Your task to perform on an android device: show emergency info Image 0: 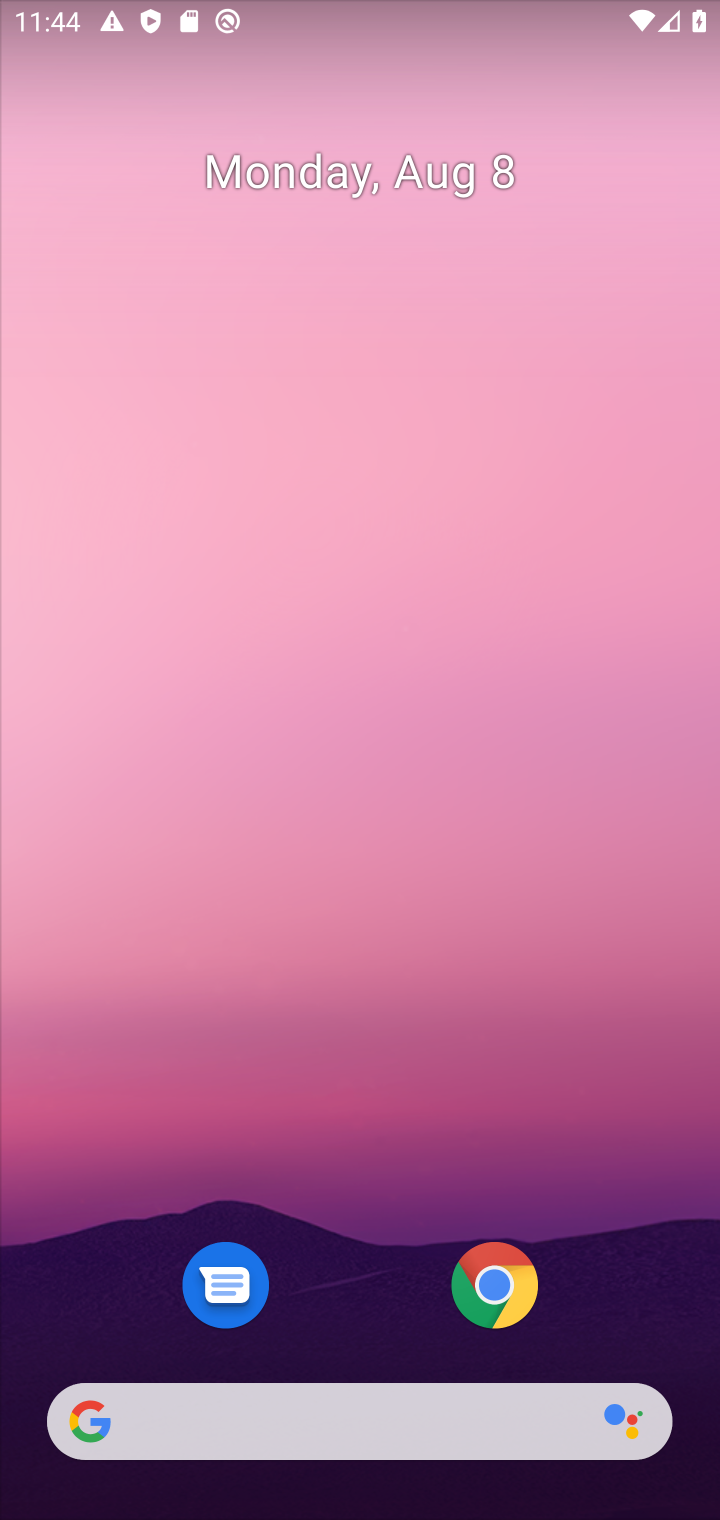
Step 0: click (391, 775)
Your task to perform on an android device: show emergency info Image 1: 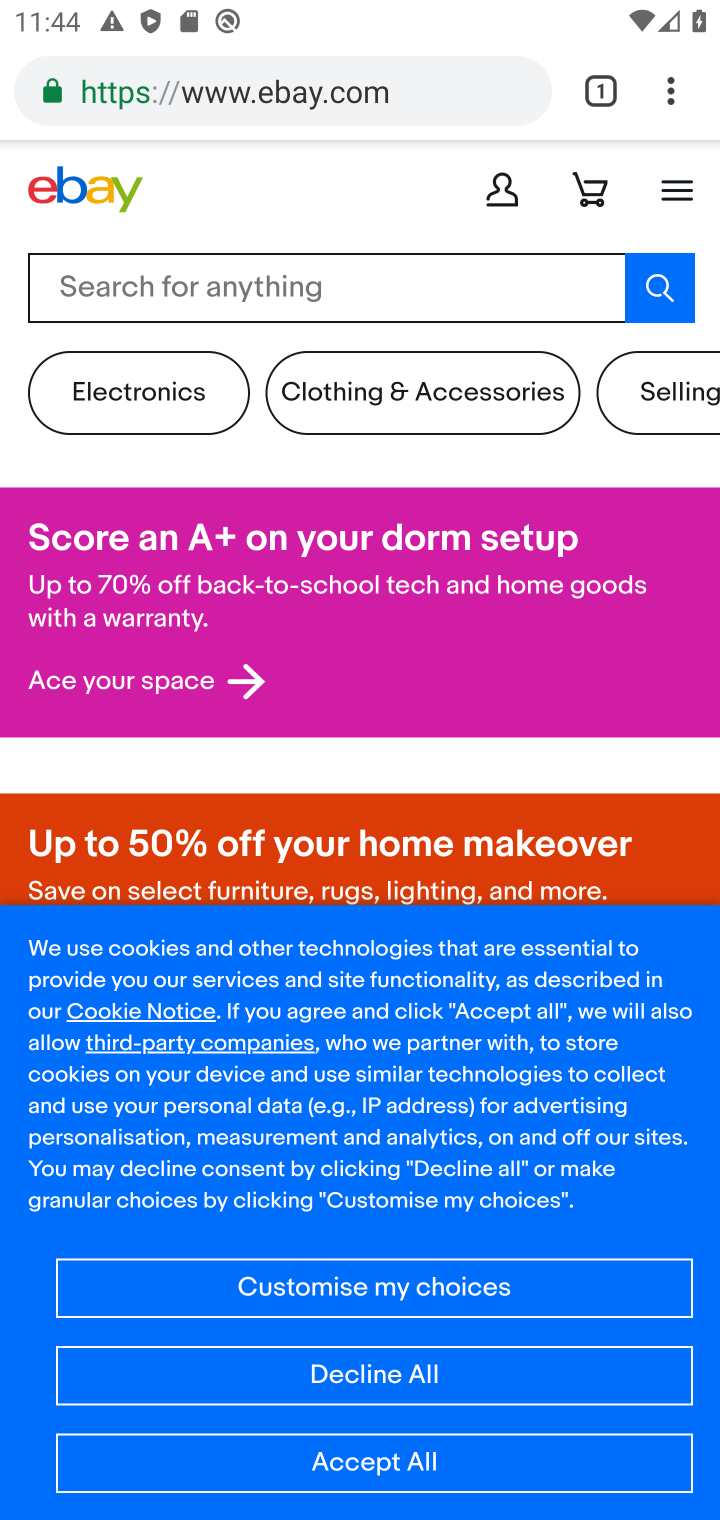
Step 1: press home button
Your task to perform on an android device: show emergency info Image 2: 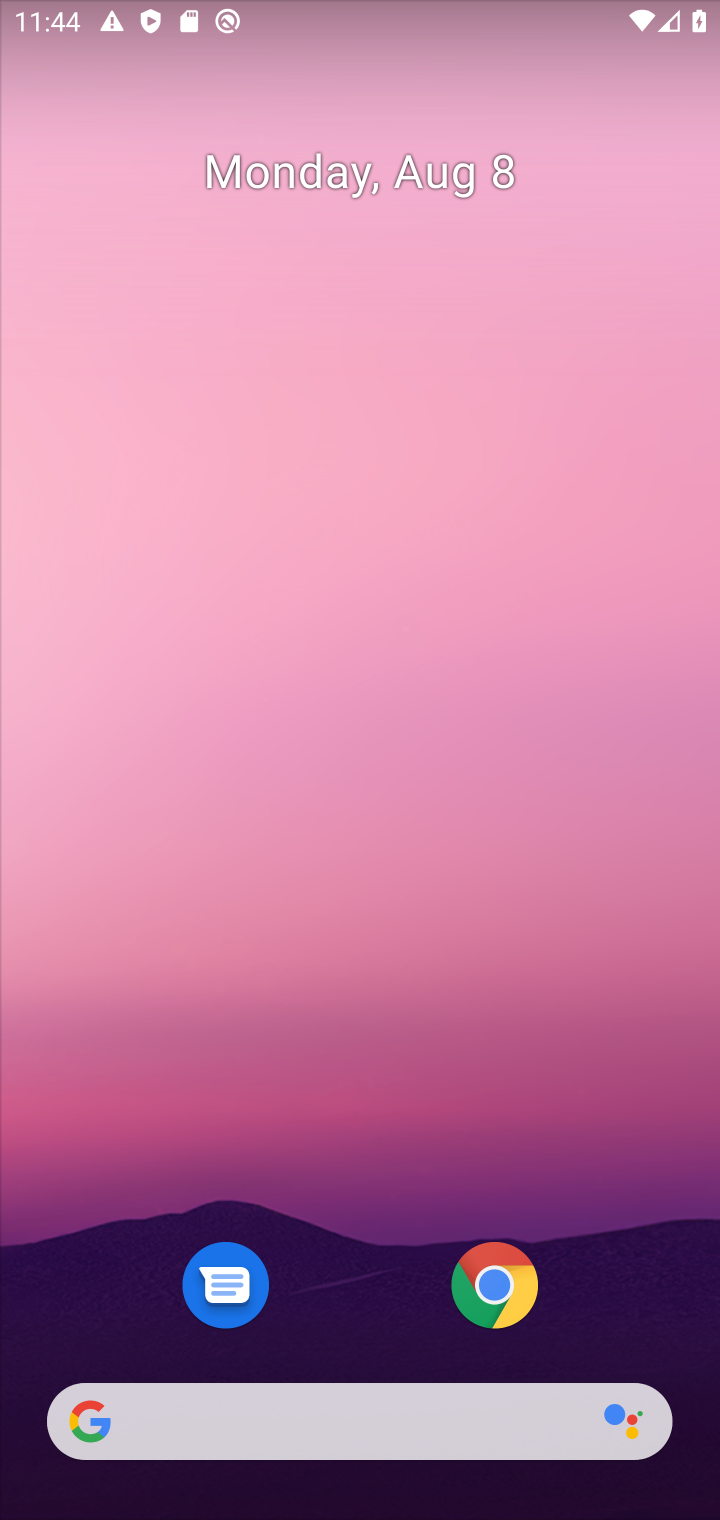
Step 2: drag from (388, 1152) to (373, 930)
Your task to perform on an android device: show emergency info Image 3: 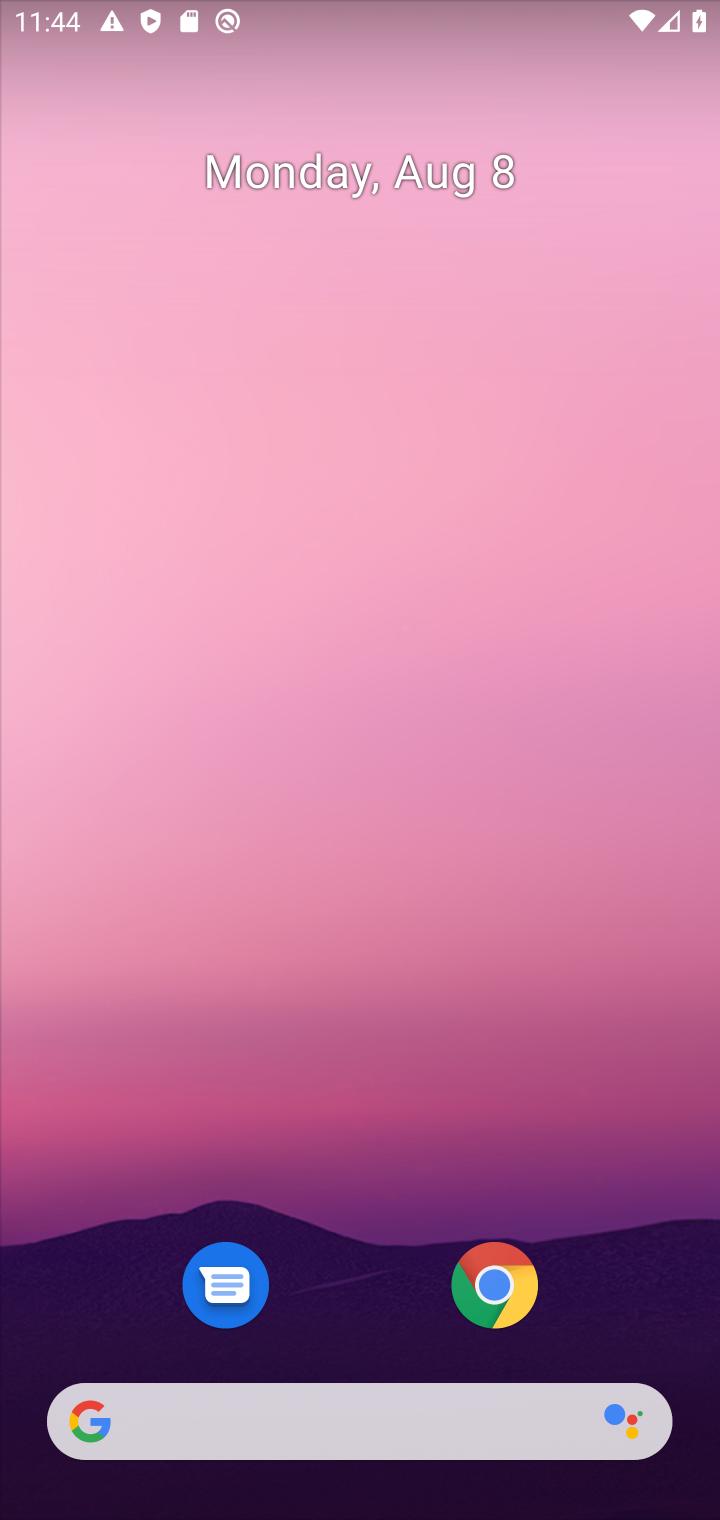
Step 3: drag from (414, 934) to (447, 601)
Your task to perform on an android device: show emergency info Image 4: 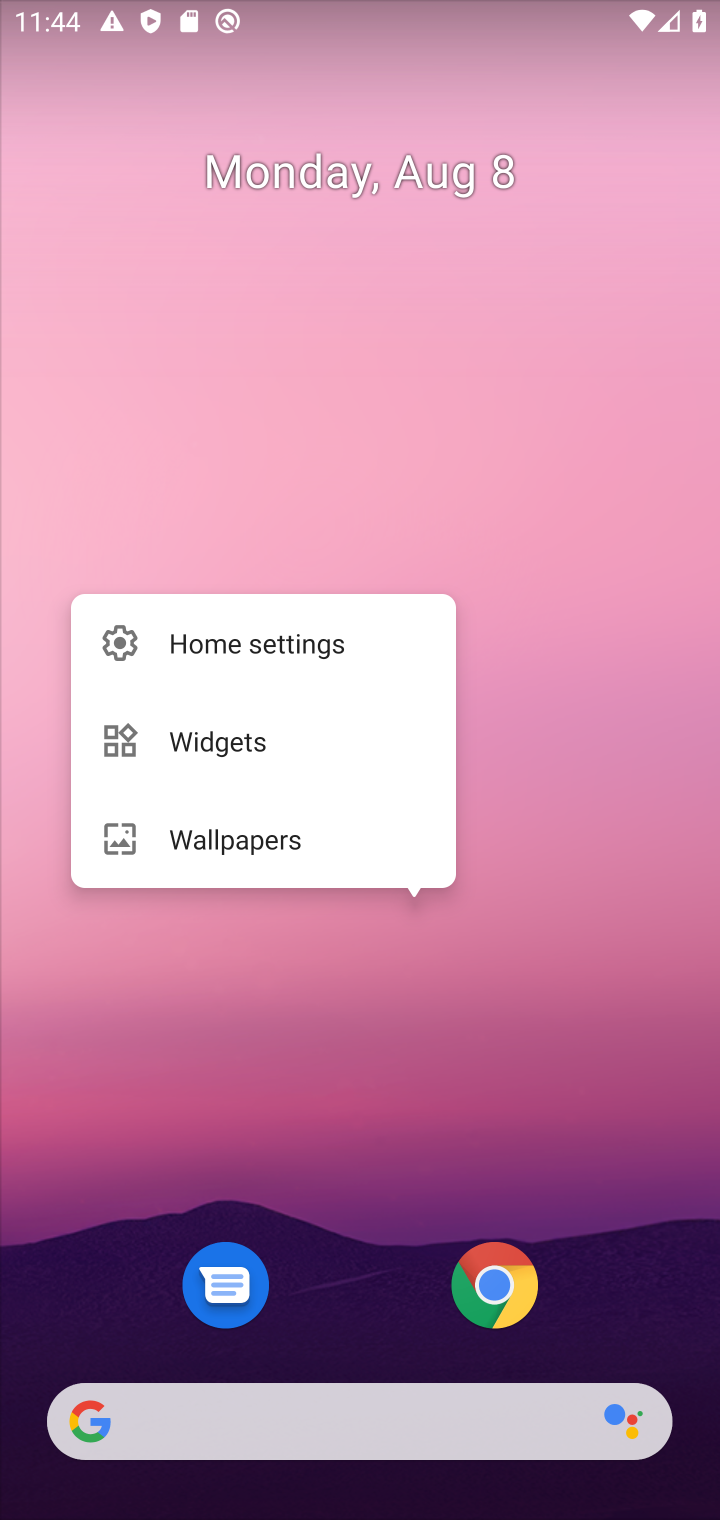
Step 4: drag from (341, 1329) to (367, 704)
Your task to perform on an android device: show emergency info Image 5: 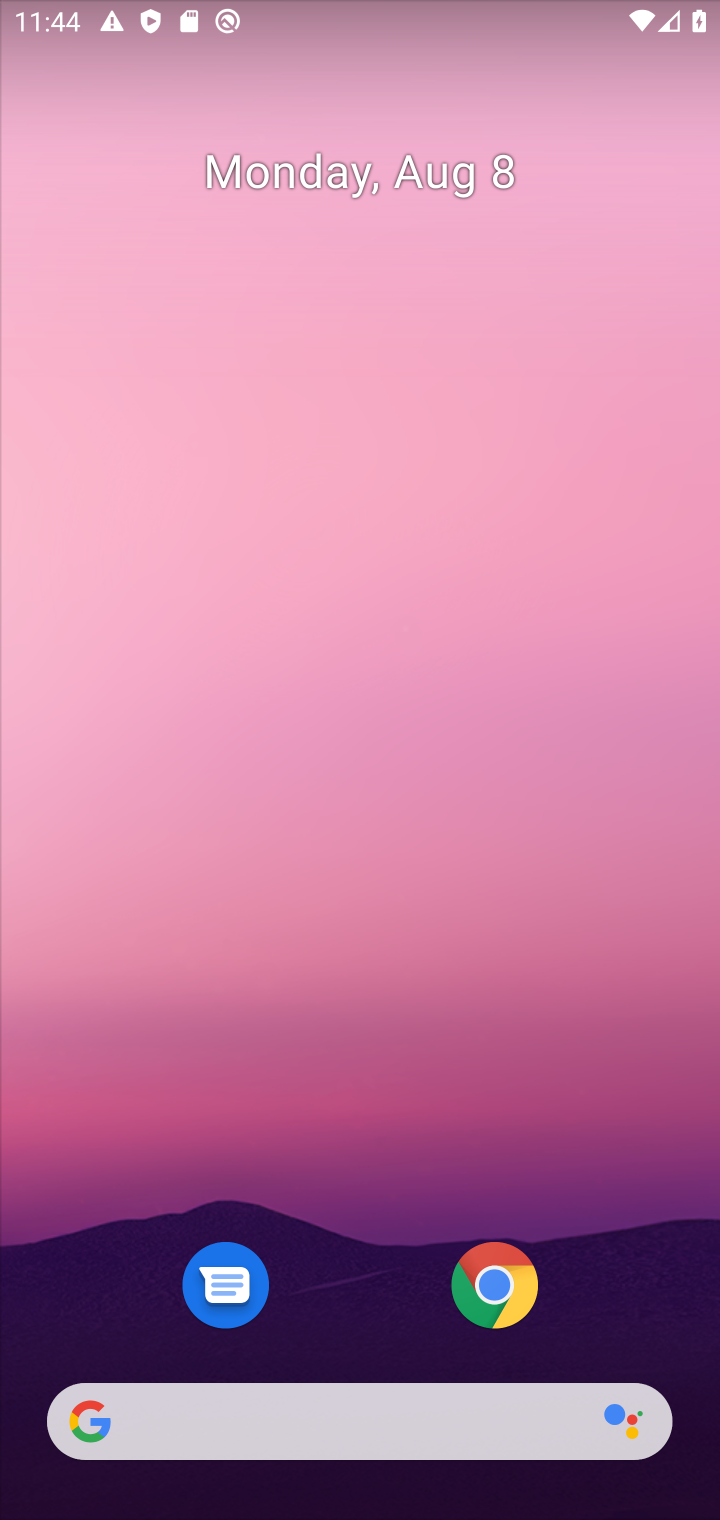
Step 5: drag from (406, 1268) to (463, 531)
Your task to perform on an android device: show emergency info Image 6: 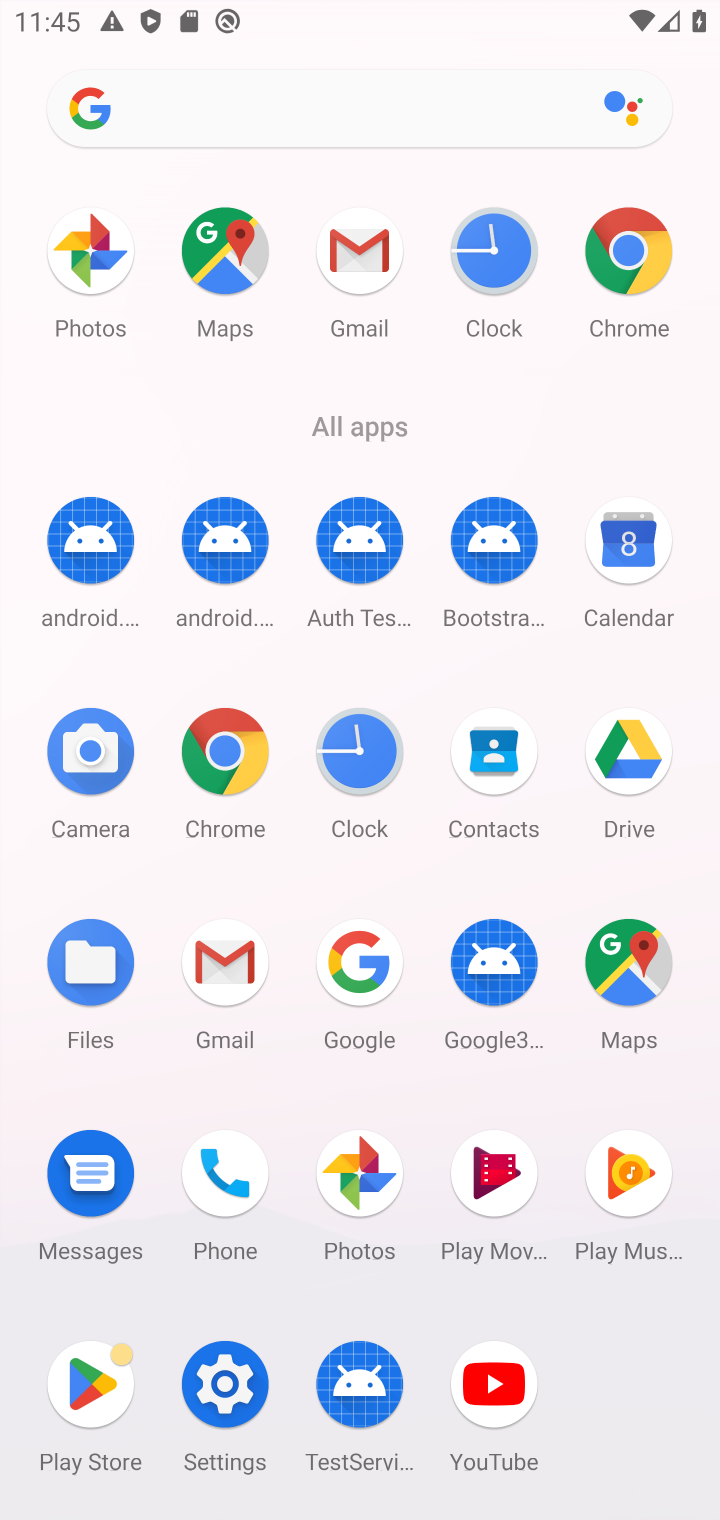
Step 6: click (230, 1364)
Your task to perform on an android device: show emergency info Image 7: 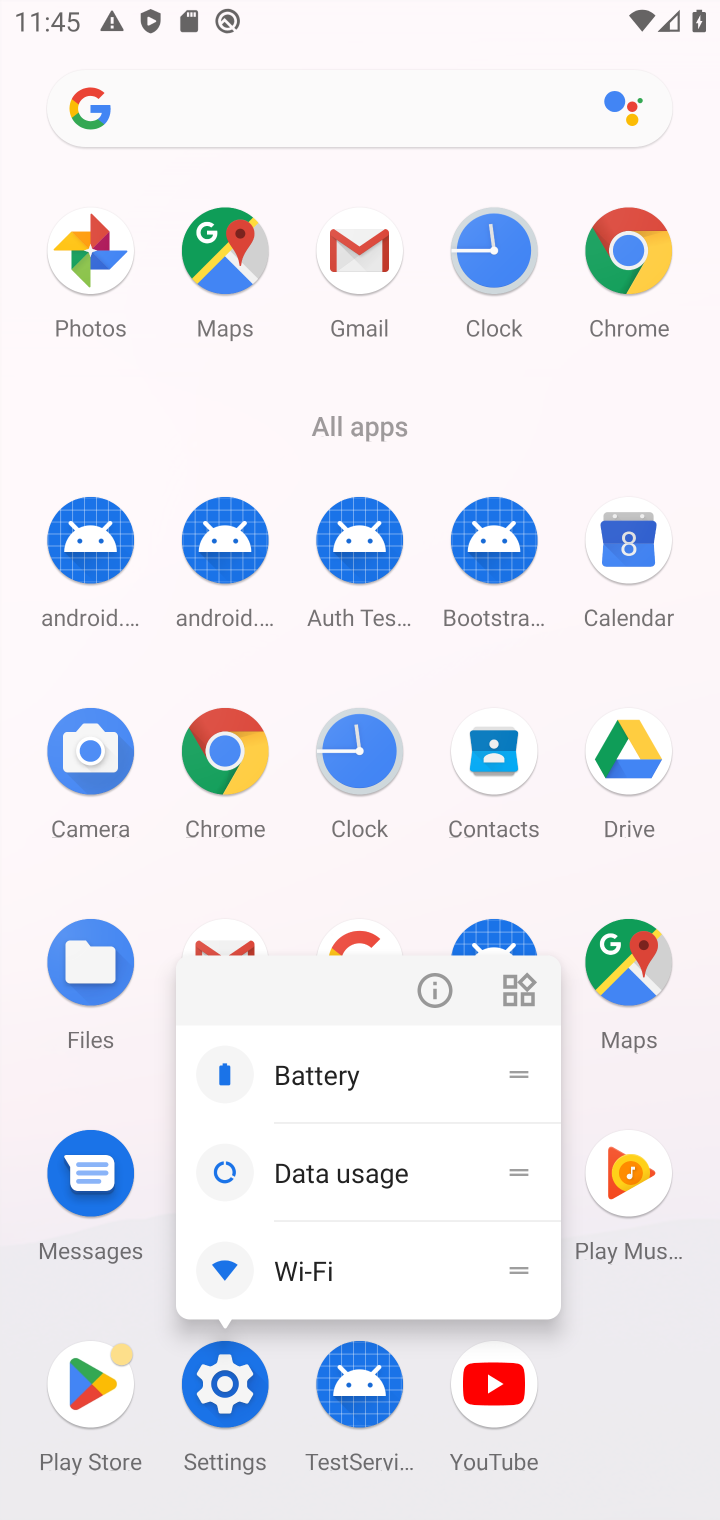
Step 7: click (441, 990)
Your task to perform on an android device: show emergency info Image 8: 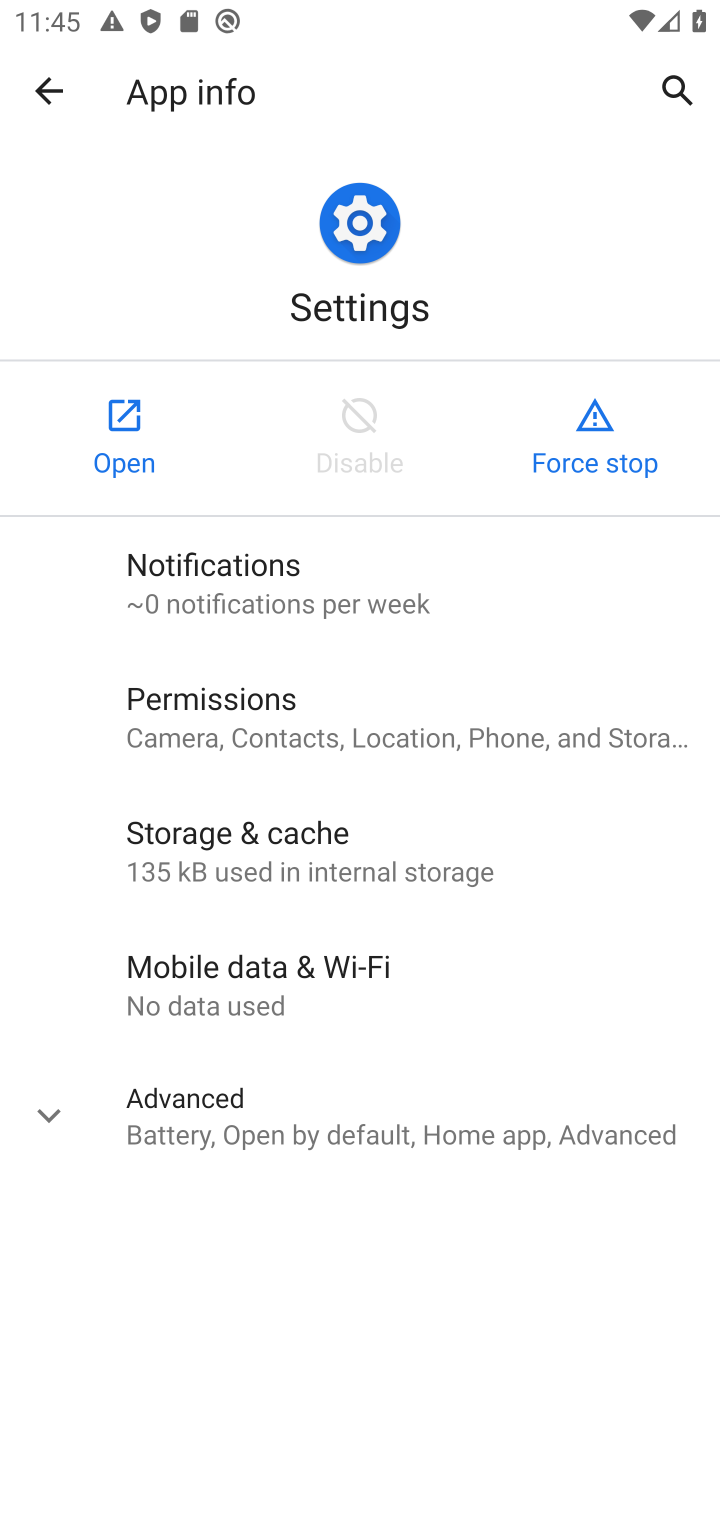
Step 8: click (96, 449)
Your task to perform on an android device: show emergency info Image 9: 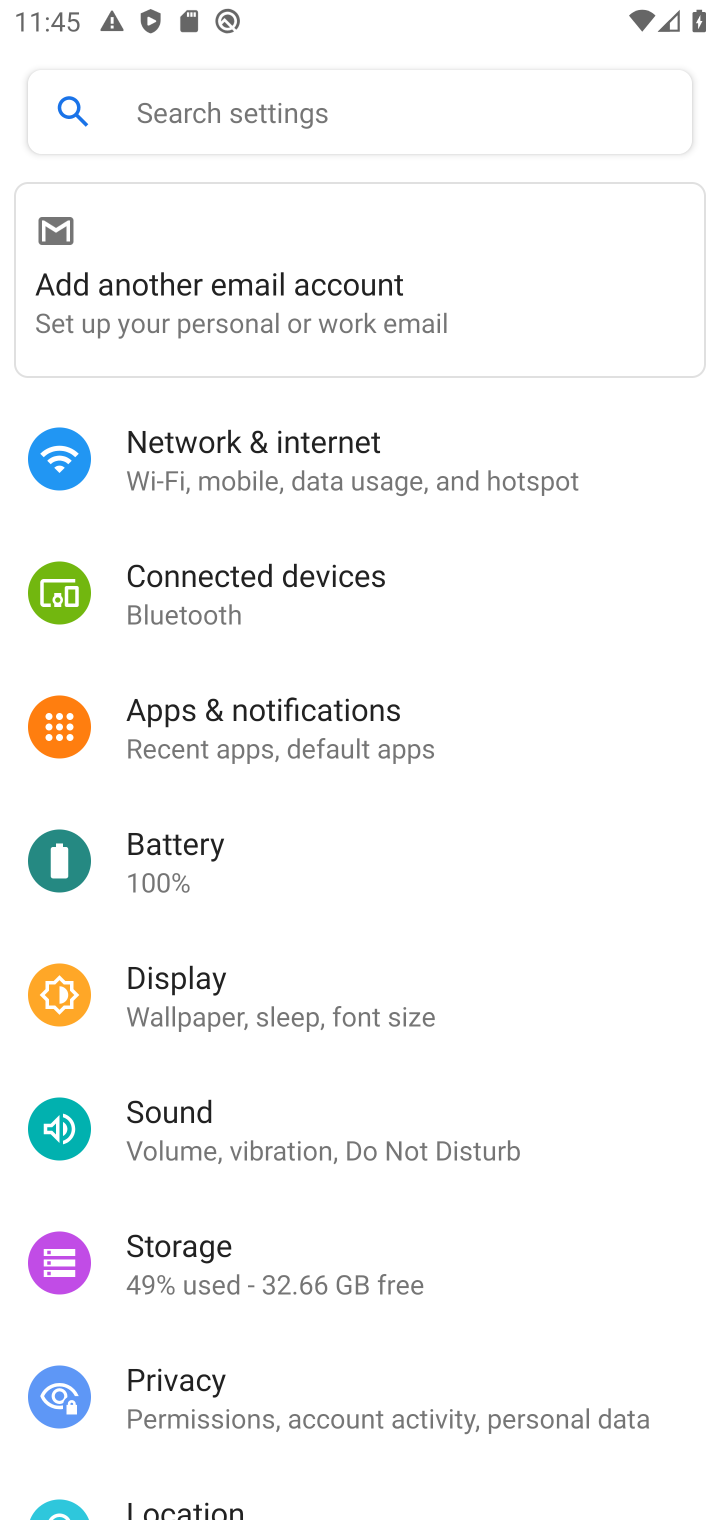
Step 9: drag from (371, 1318) to (482, 211)
Your task to perform on an android device: show emergency info Image 10: 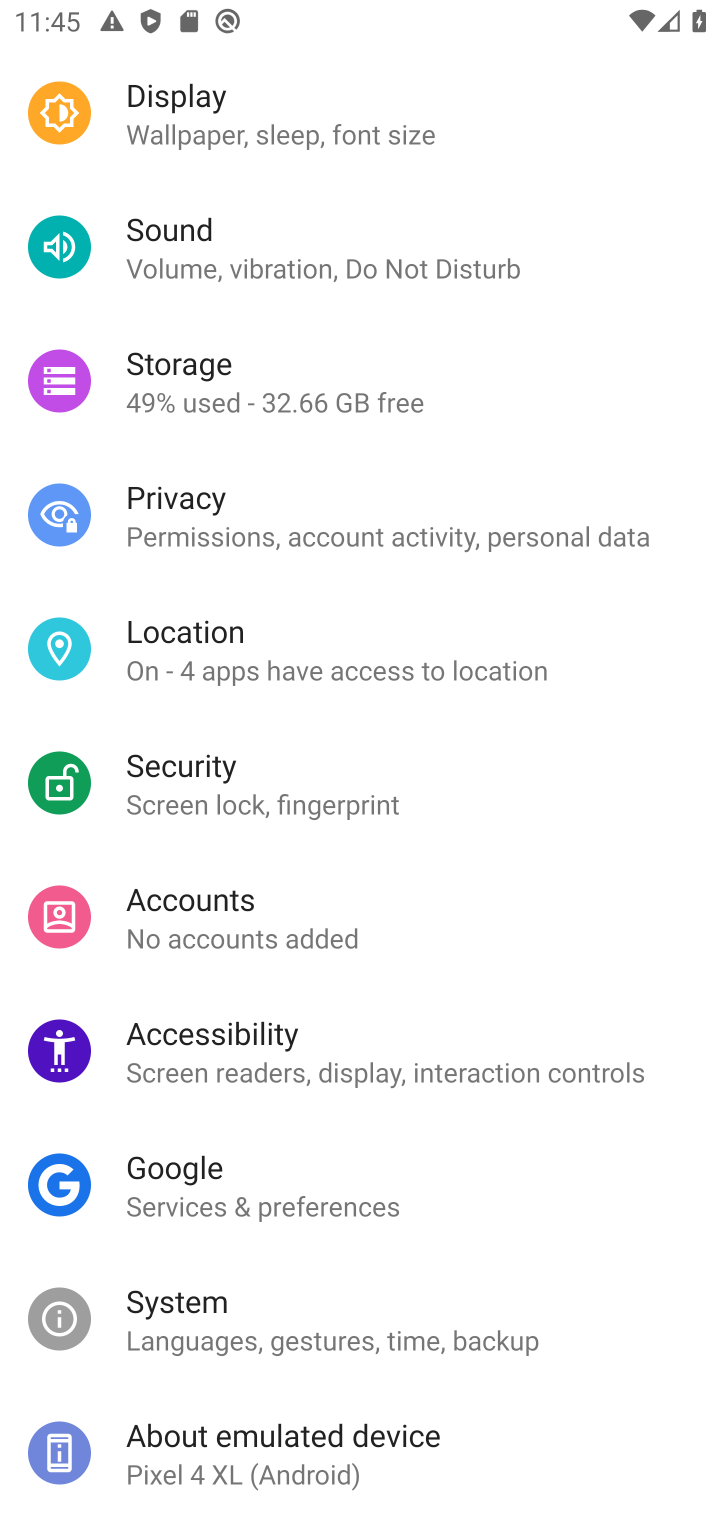
Step 10: click (293, 1434)
Your task to perform on an android device: show emergency info Image 11: 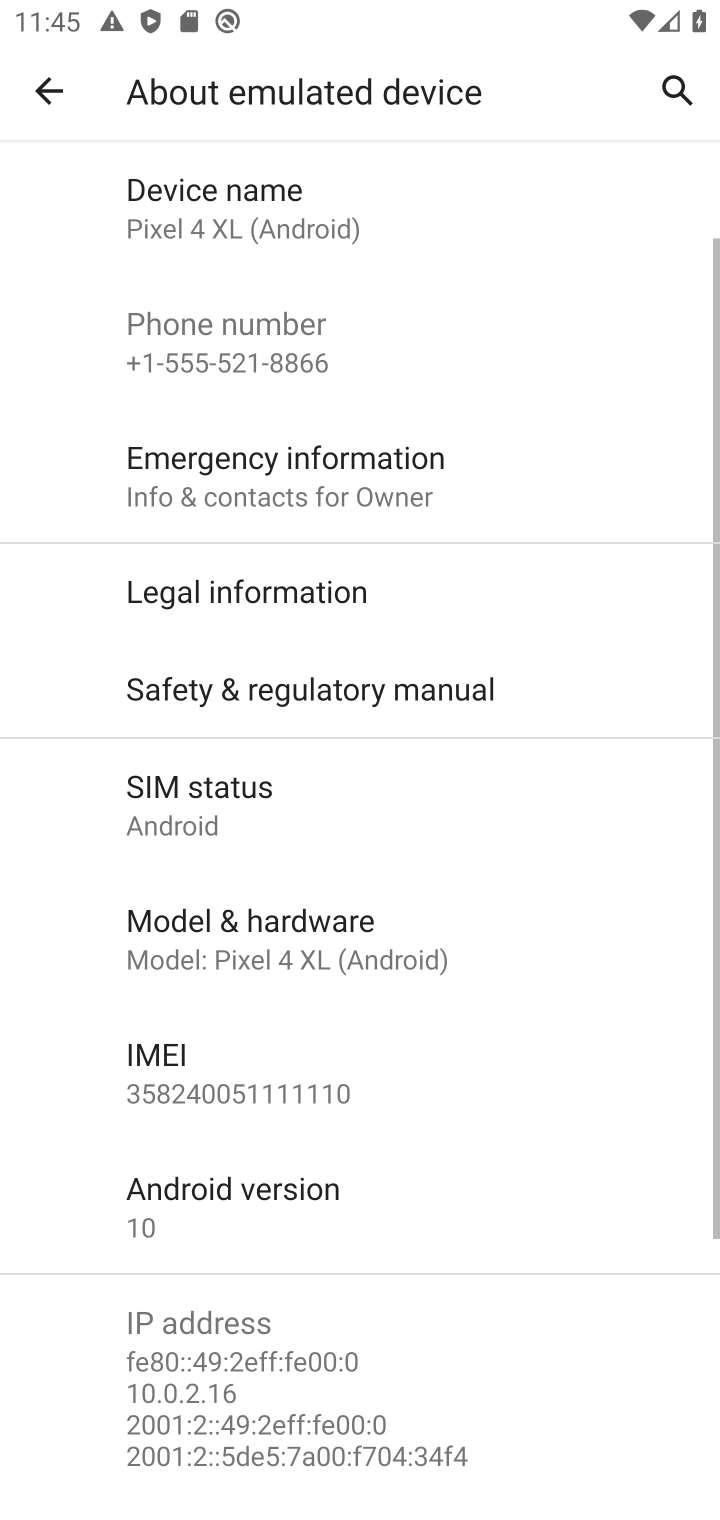
Step 11: click (347, 458)
Your task to perform on an android device: show emergency info Image 12: 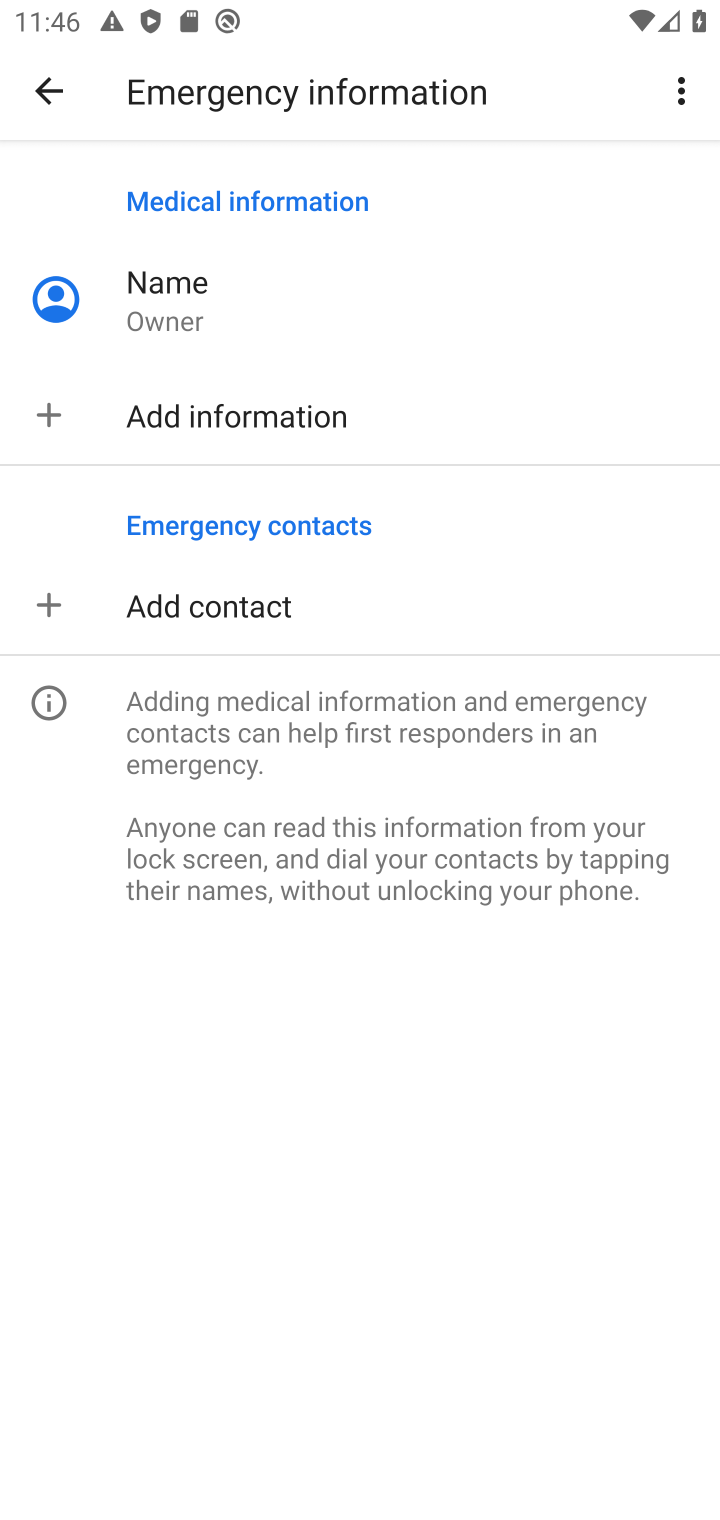
Step 12: click (267, 906)
Your task to perform on an android device: show emergency info Image 13: 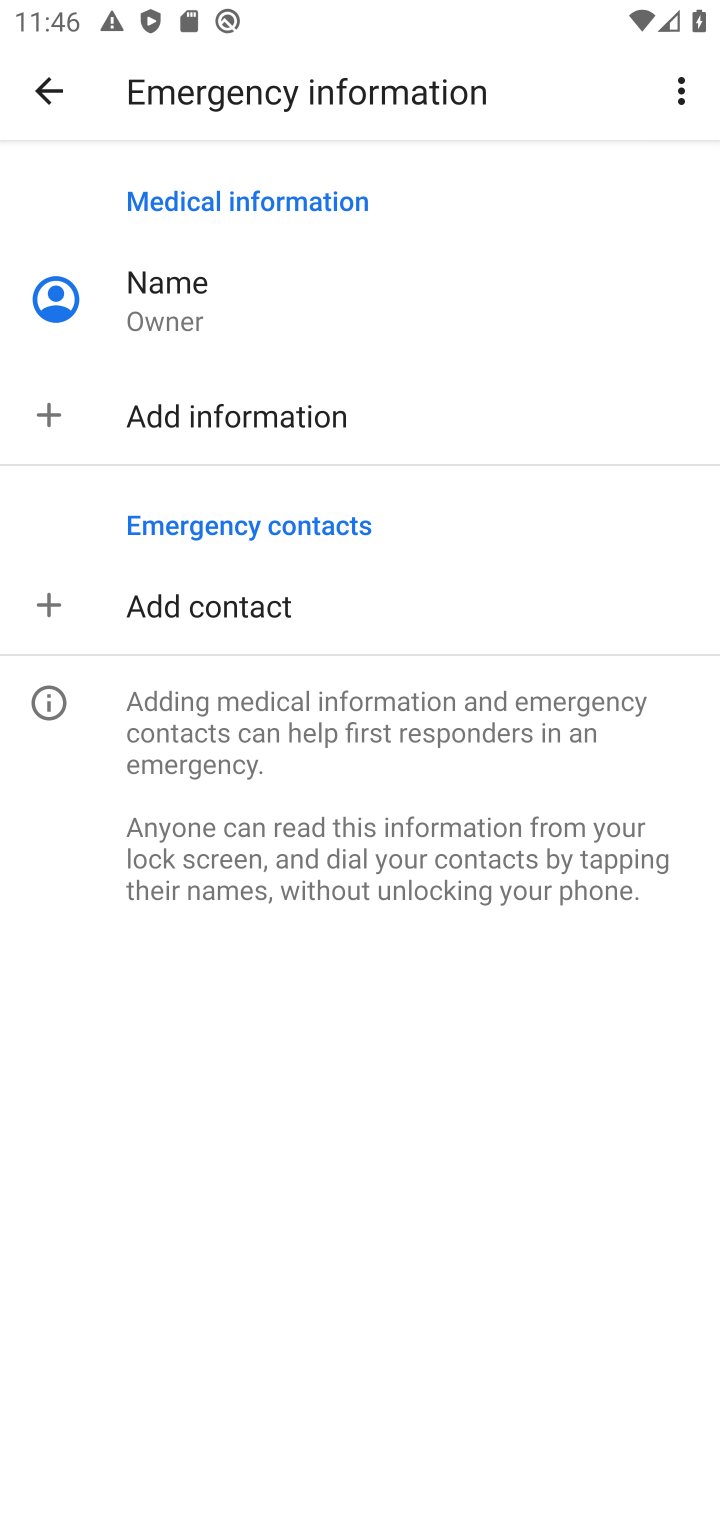
Step 13: click (718, 647)
Your task to perform on an android device: show emergency info Image 14: 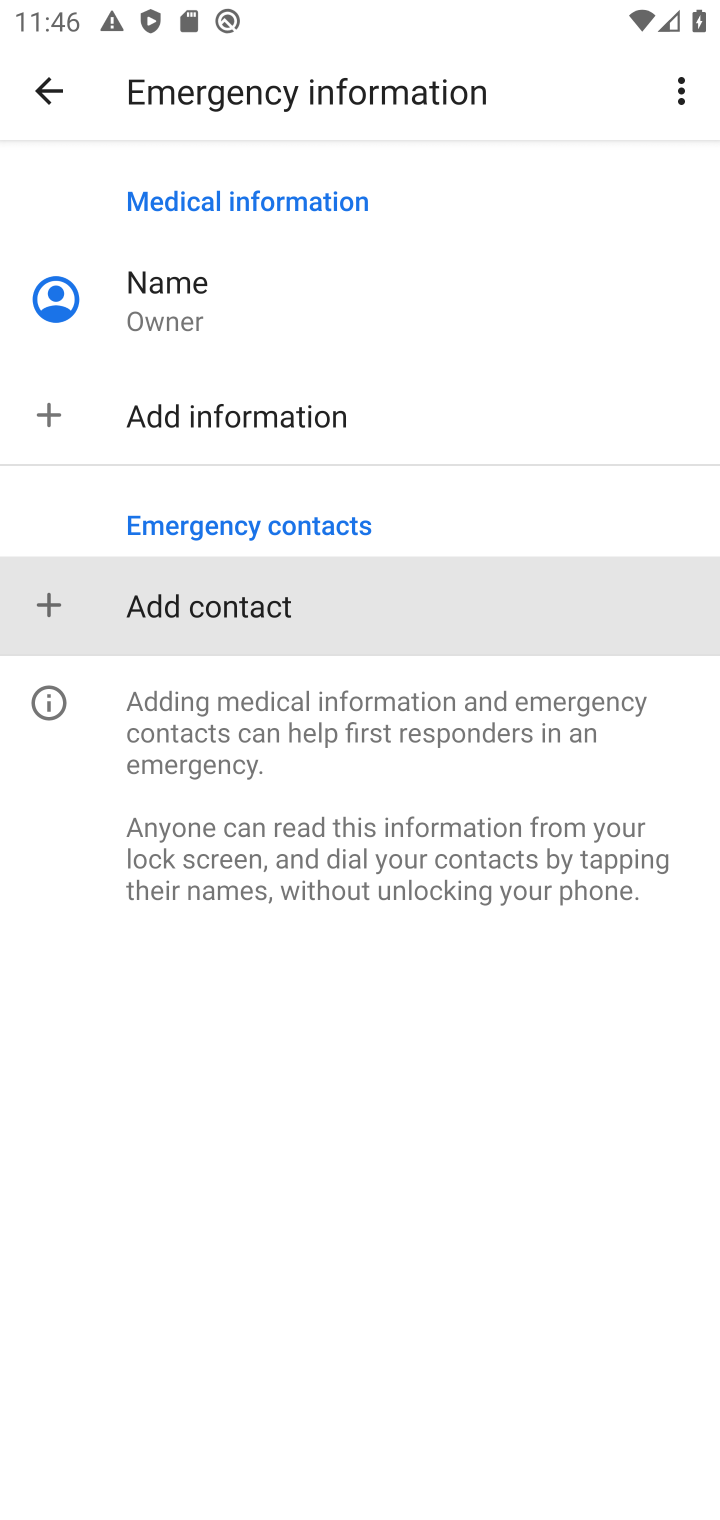
Step 14: task complete